Your task to perform on an android device: Go to Amazon Image 0: 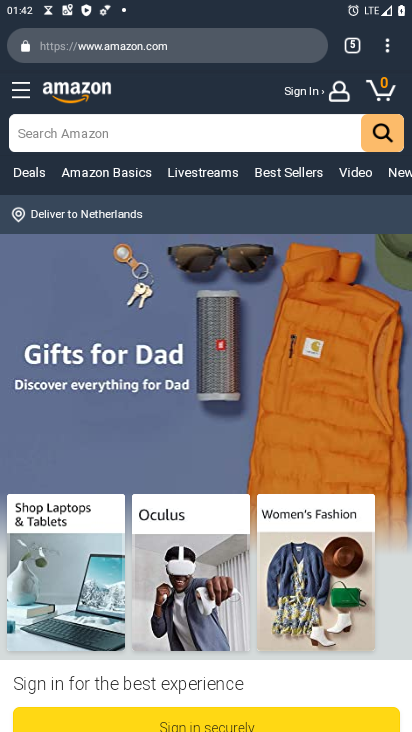
Step 0: task complete